Your task to perform on an android device: Go to sound settings Image 0: 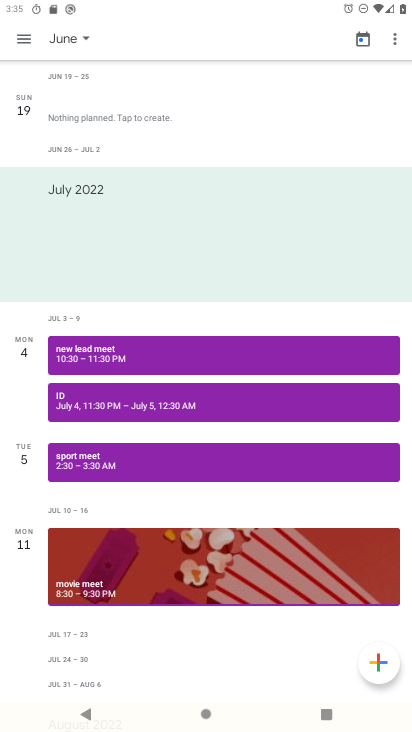
Step 0: press home button
Your task to perform on an android device: Go to sound settings Image 1: 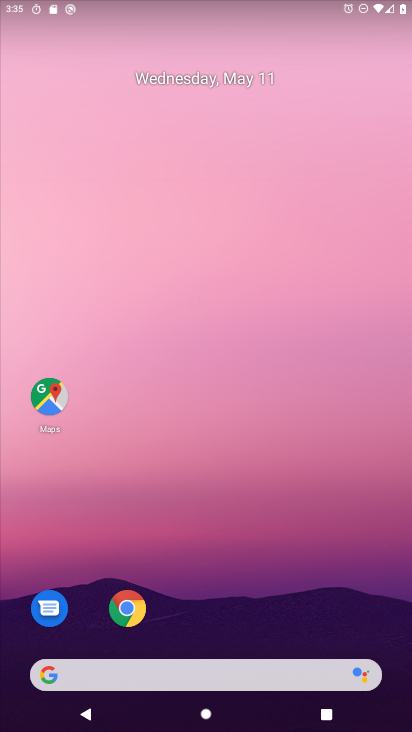
Step 1: drag from (275, 650) to (243, 178)
Your task to perform on an android device: Go to sound settings Image 2: 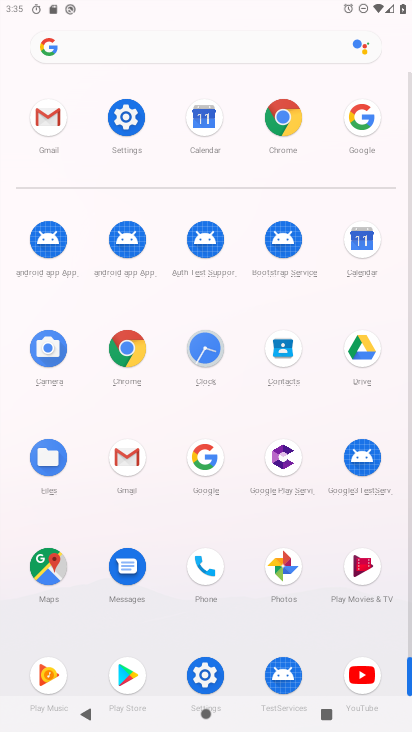
Step 2: click (133, 129)
Your task to perform on an android device: Go to sound settings Image 3: 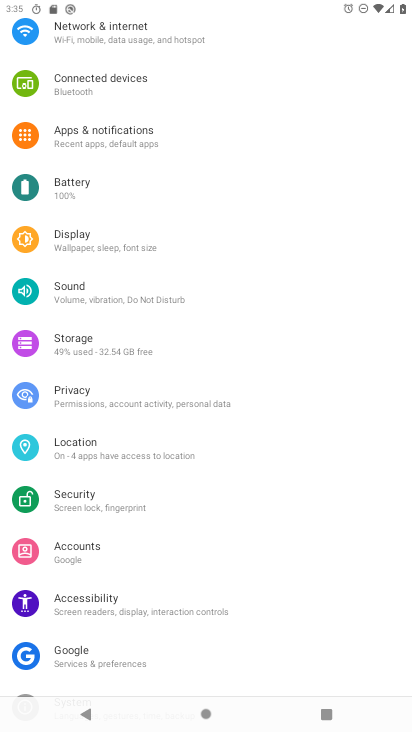
Step 3: drag from (123, 506) to (125, 284)
Your task to perform on an android device: Go to sound settings Image 4: 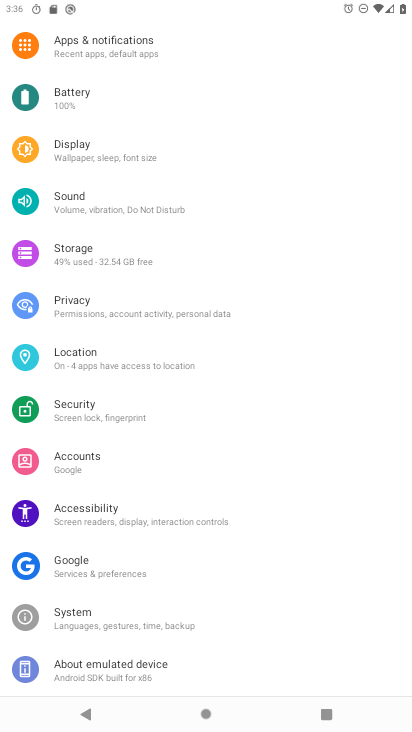
Step 4: click (104, 208)
Your task to perform on an android device: Go to sound settings Image 5: 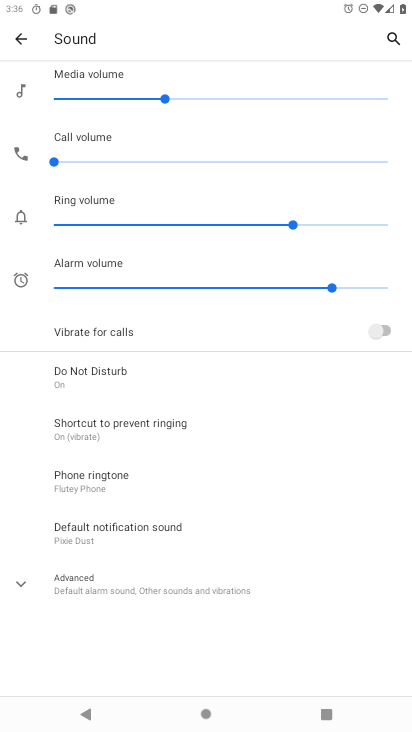
Step 5: task complete